Your task to perform on an android device: Open Yahoo.com Image 0: 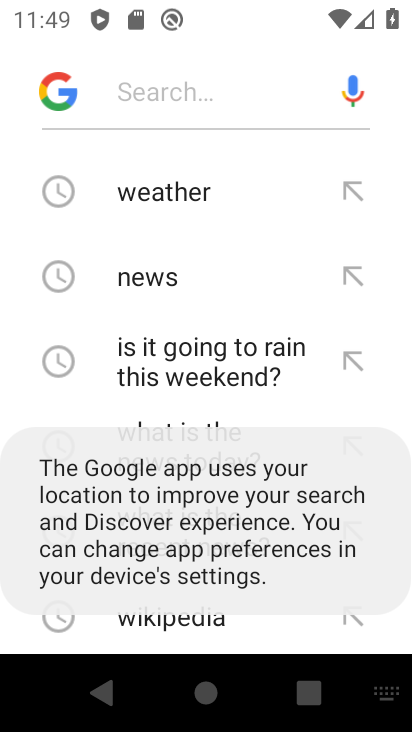
Step 0: press back button
Your task to perform on an android device: Open Yahoo.com Image 1: 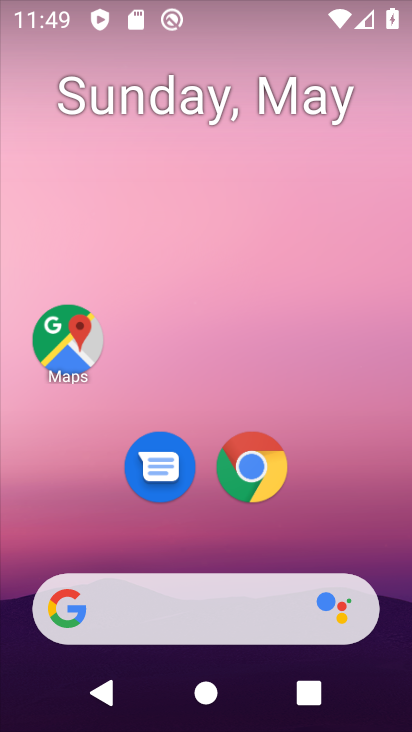
Step 1: click (270, 489)
Your task to perform on an android device: Open Yahoo.com Image 2: 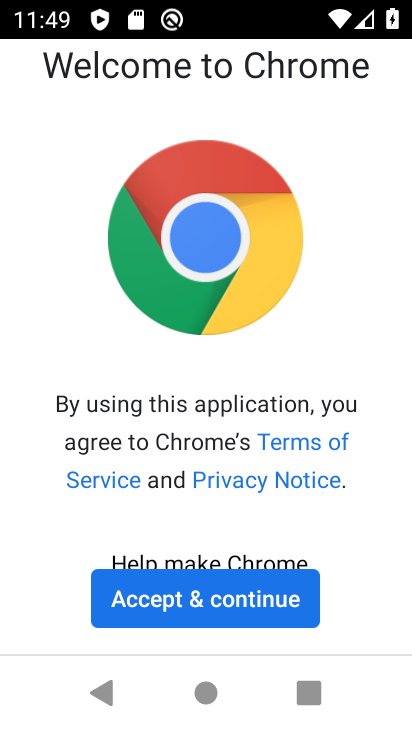
Step 2: click (218, 589)
Your task to perform on an android device: Open Yahoo.com Image 3: 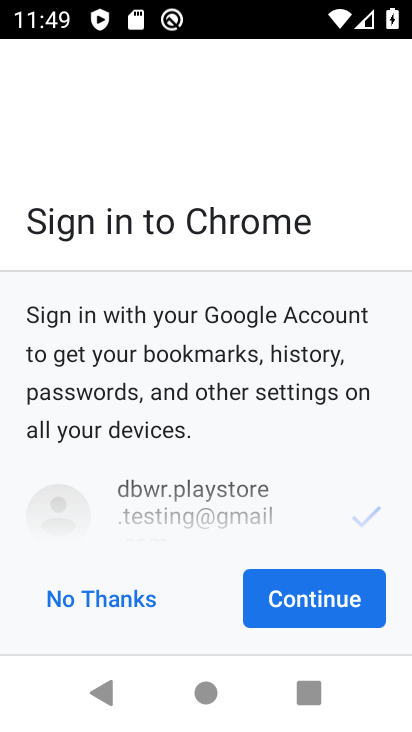
Step 3: click (261, 586)
Your task to perform on an android device: Open Yahoo.com Image 4: 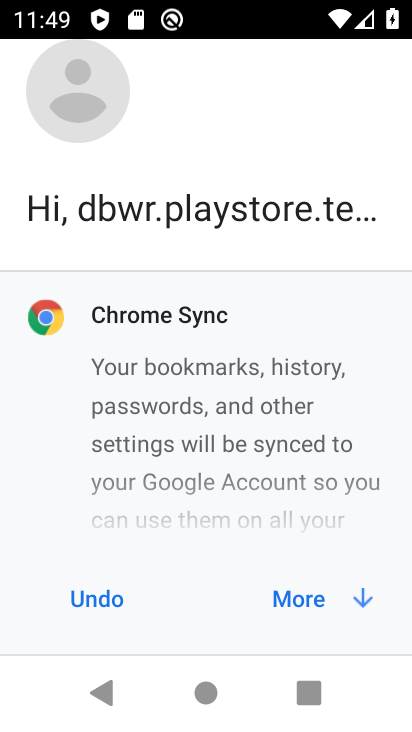
Step 4: click (319, 594)
Your task to perform on an android device: Open Yahoo.com Image 5: 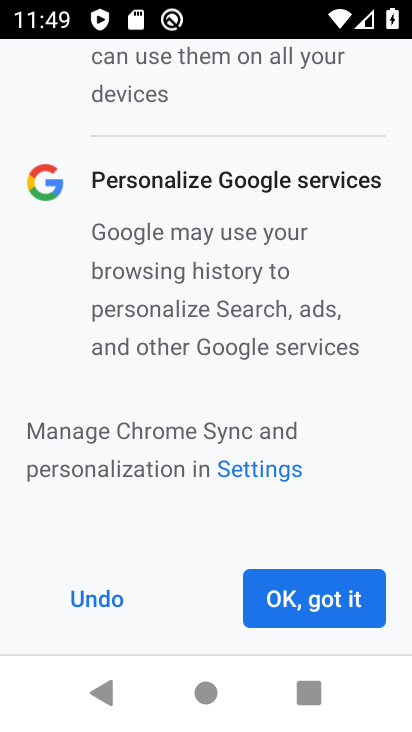
Step 5: click (321, 594)
Your task to perform on an android device: Open Yahoo.com Image 6: 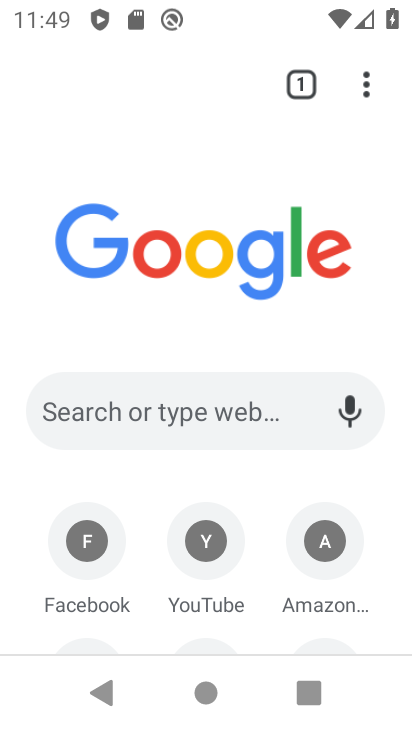
Step 6: drag from (152, 609) to (147, 382)
Your task to perform on an android device: Open Yahoo.com Image 7: 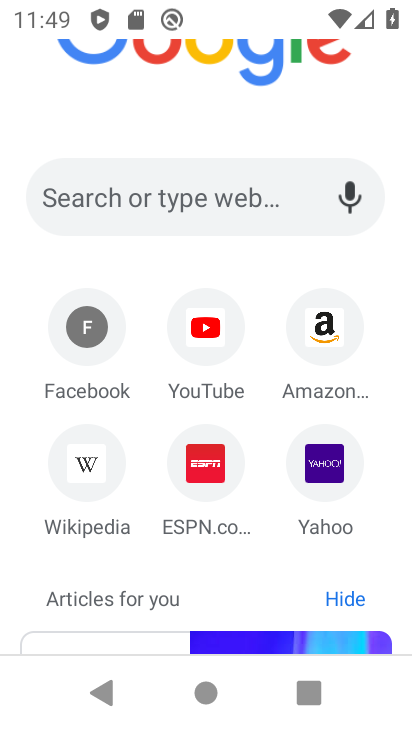
Step 7: click (328, 482)
Your task to perform on an android device: Open Yahoo.com Image 8: 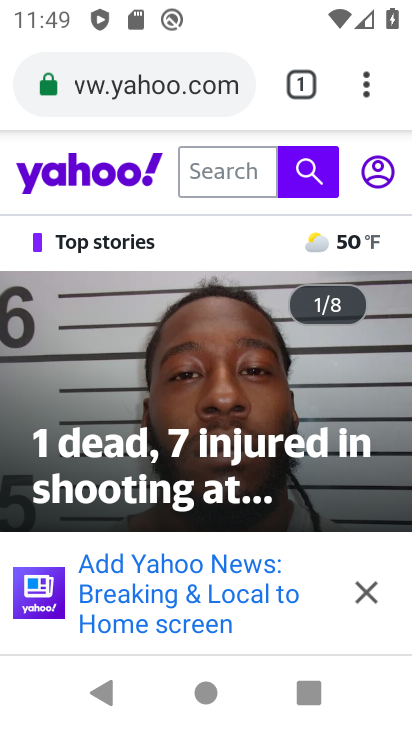
Step 8: task complete